Your task to perform on an android device: open app "DoorDash - Food Delivery" Image 0: 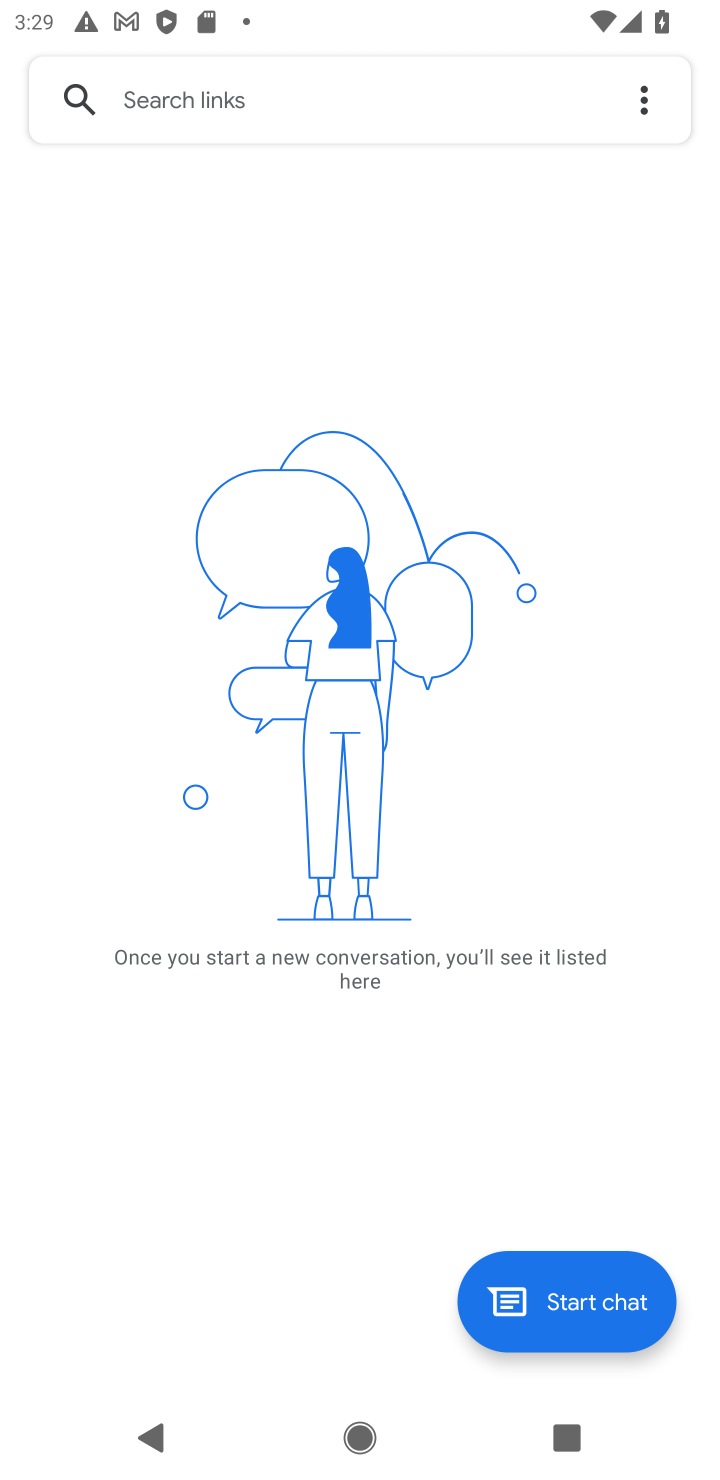
Step 0: press back button
Your task to perform on an android device: open app "DoorDash - Food Delivery" Image 1: 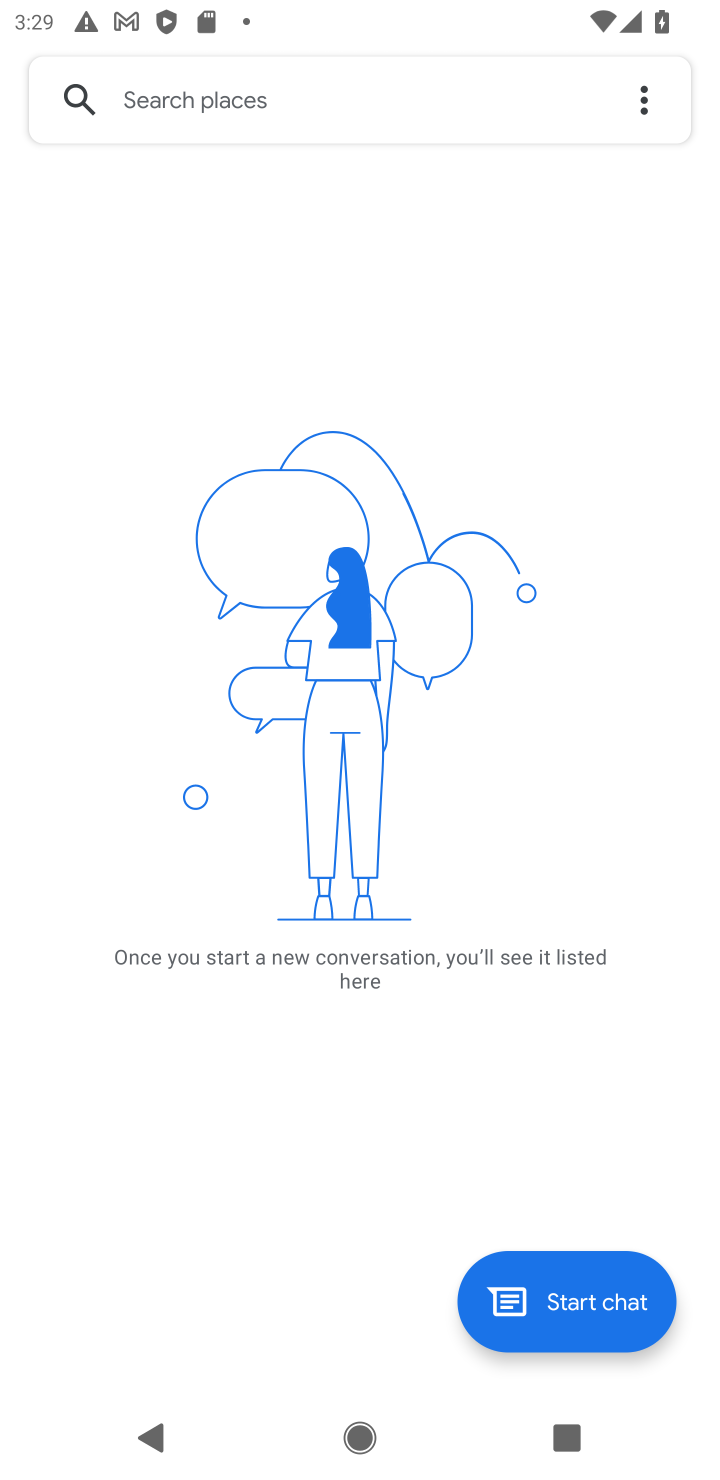
Step 1: press back button
Your task to perform on an android device: open app "DoorDash - Food Delivery" Image 2: 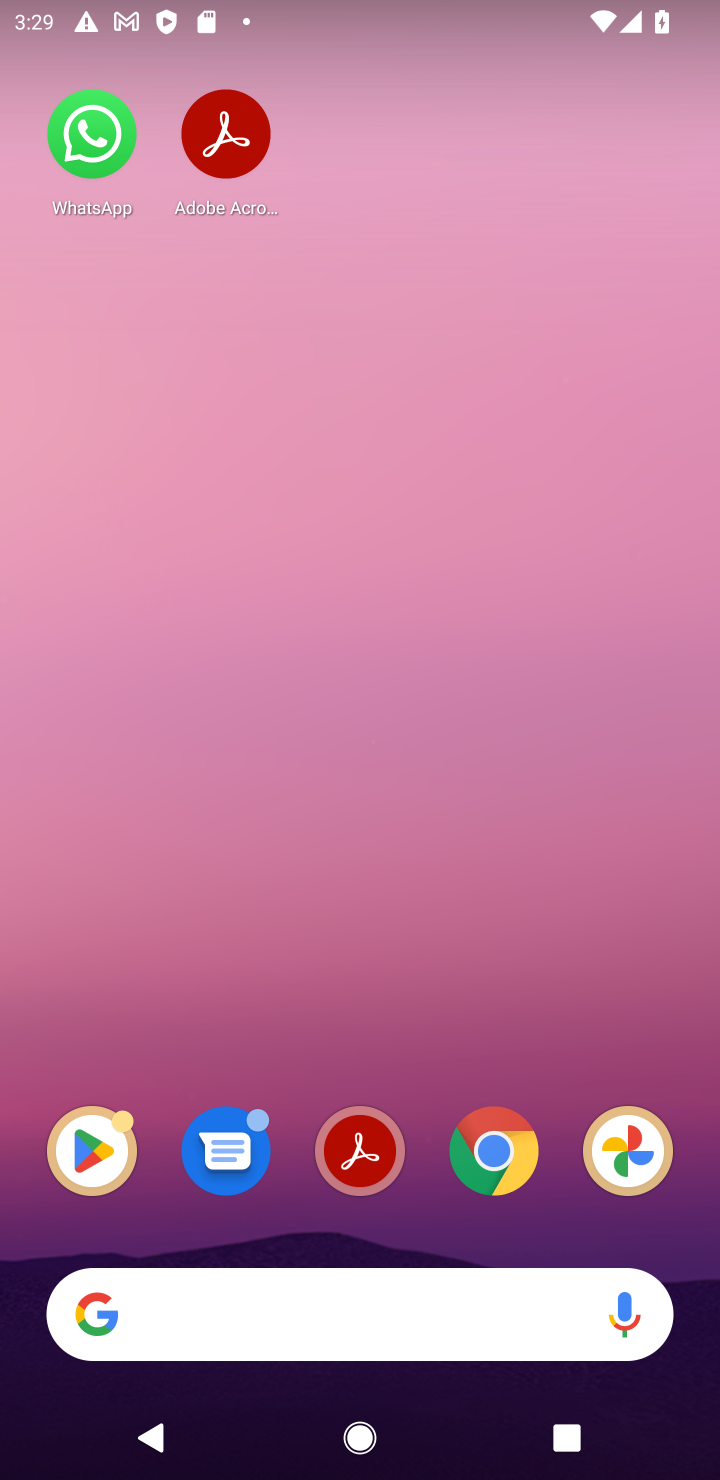
Step 2: drag from (422, 1044) to (395, 296)
Your task to perform on an android device: open app "DoorDash - Food Delivery" Image 3: 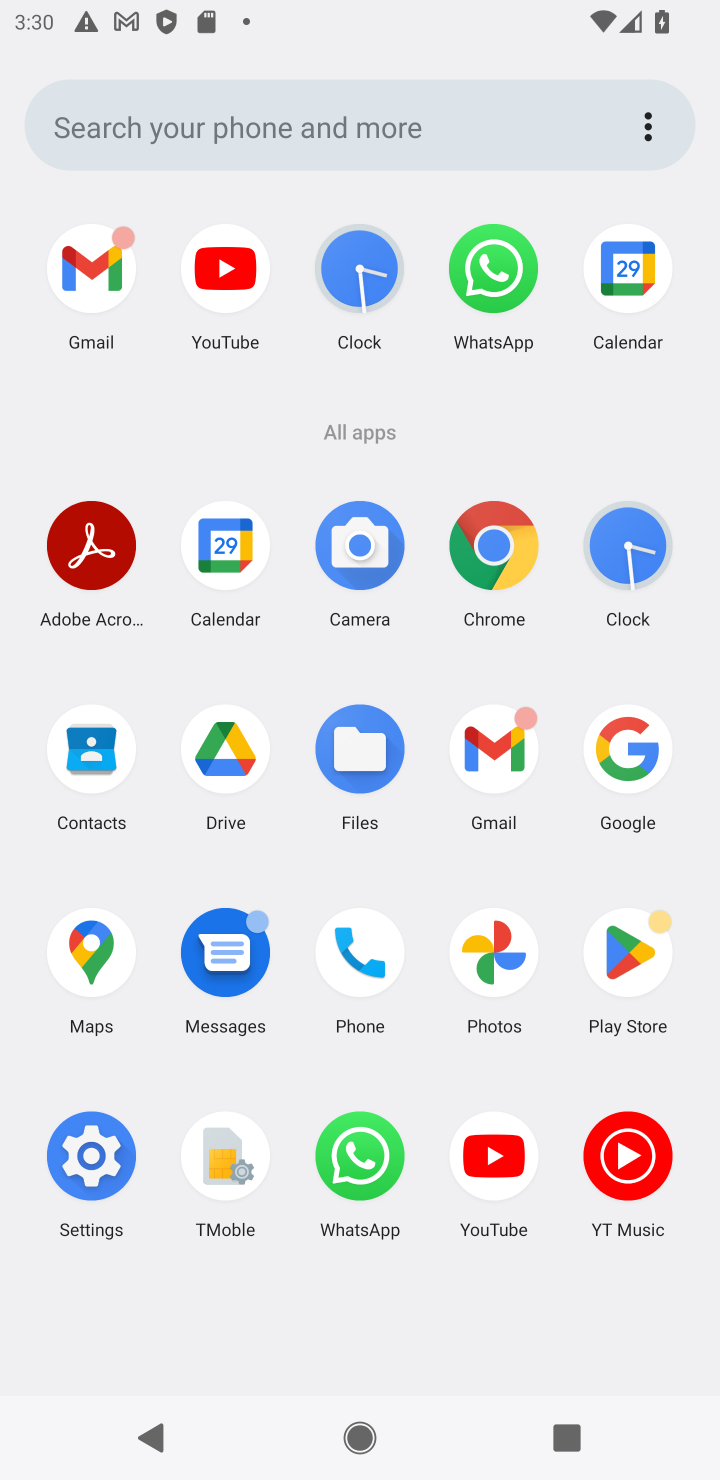
Step 3: click (624, 964)
Your task to perform on an android device: open app "DoorDash - Food Delivery" Image 4: 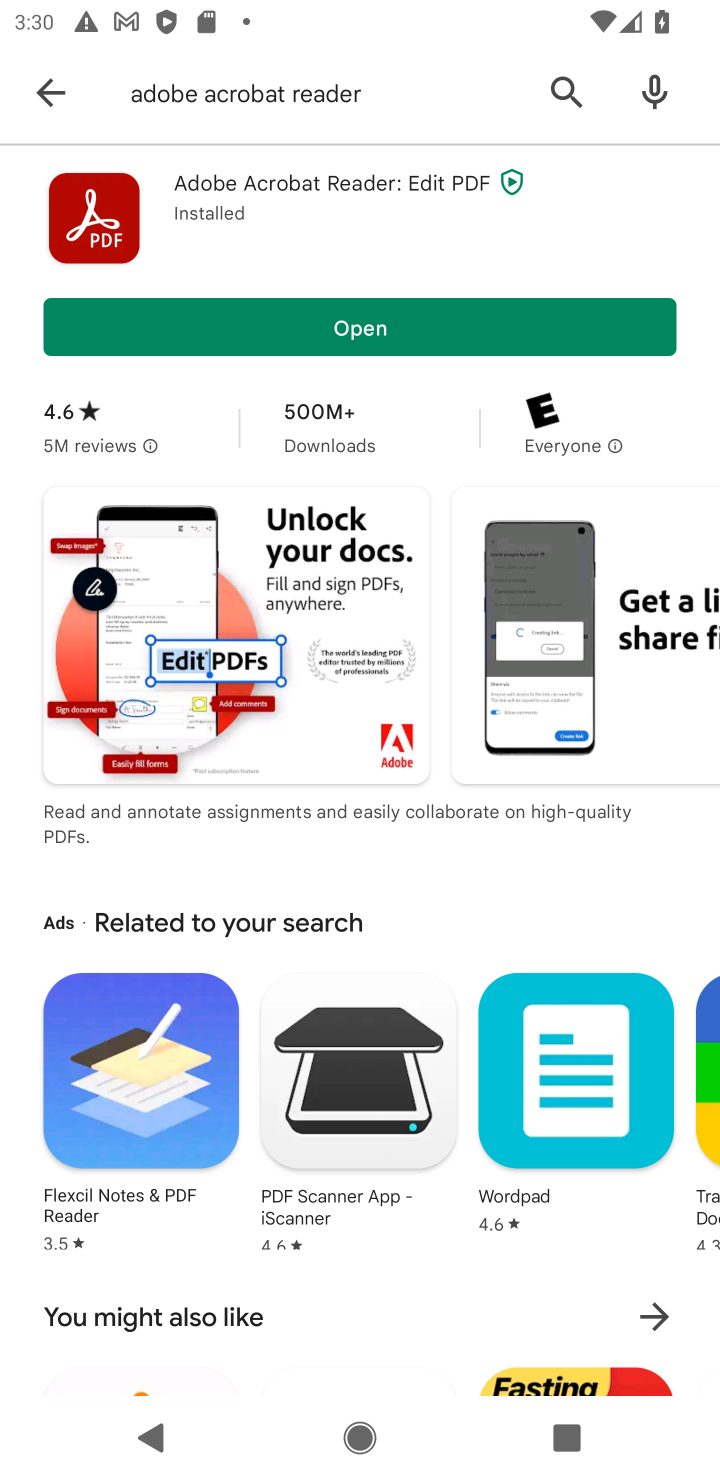
Step 4: click (570, 94)
Your task to perform on an android device: open app "DoorDash - Food Delivery" Image 5: 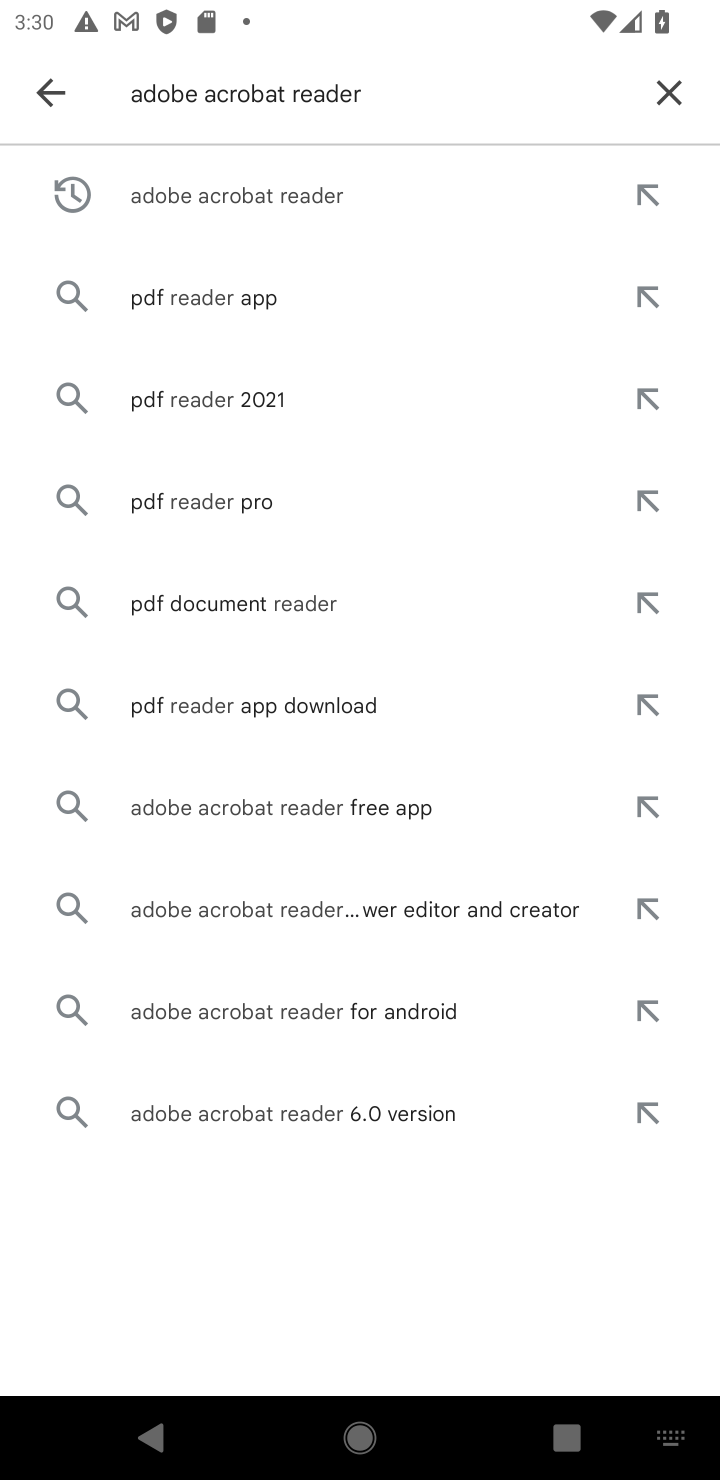
Step 5: click (662, 105)
Your task to perform on an android device: open app "DoorDash - Food Delivery" Image 6: 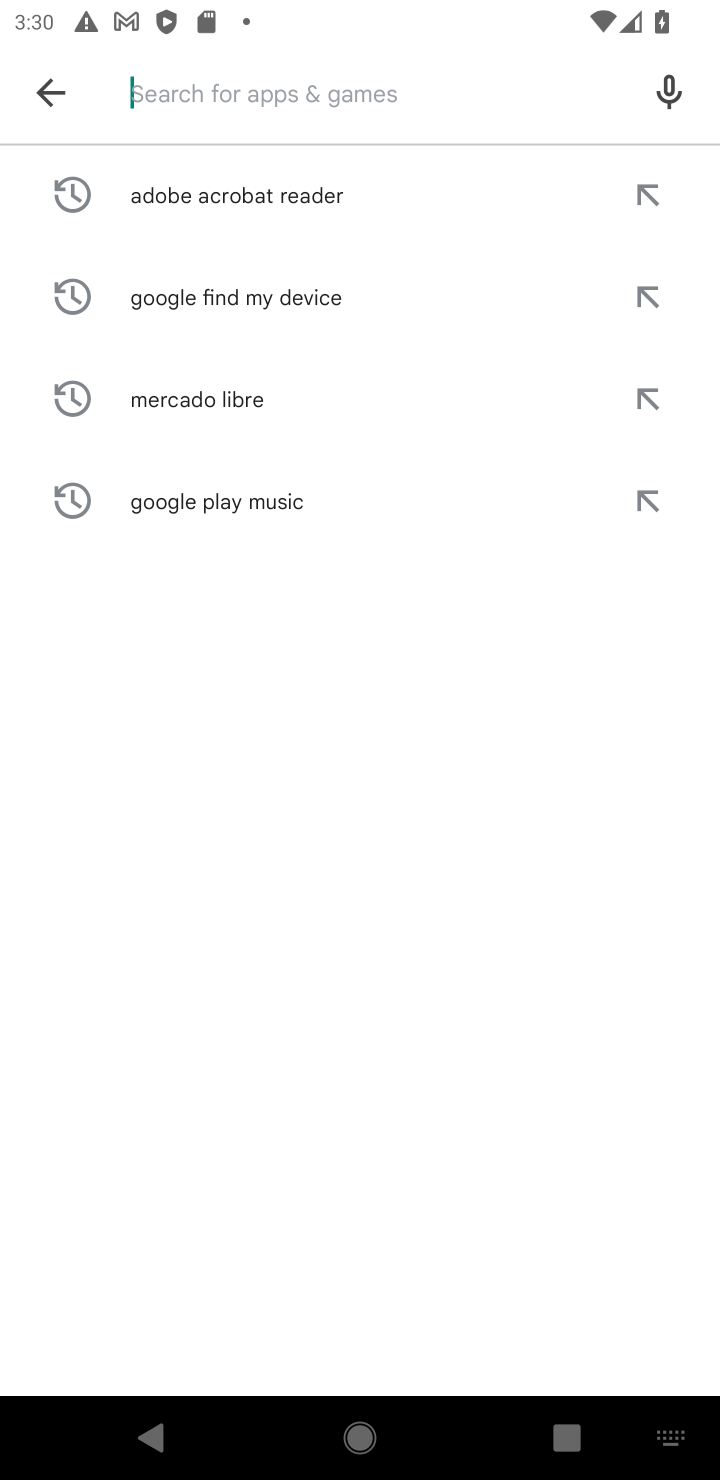
Step 6: type "DoorDash - Food Delivery"
Your task to perform on an android device: open app "DoorDash - Food Delivery" Image 7: 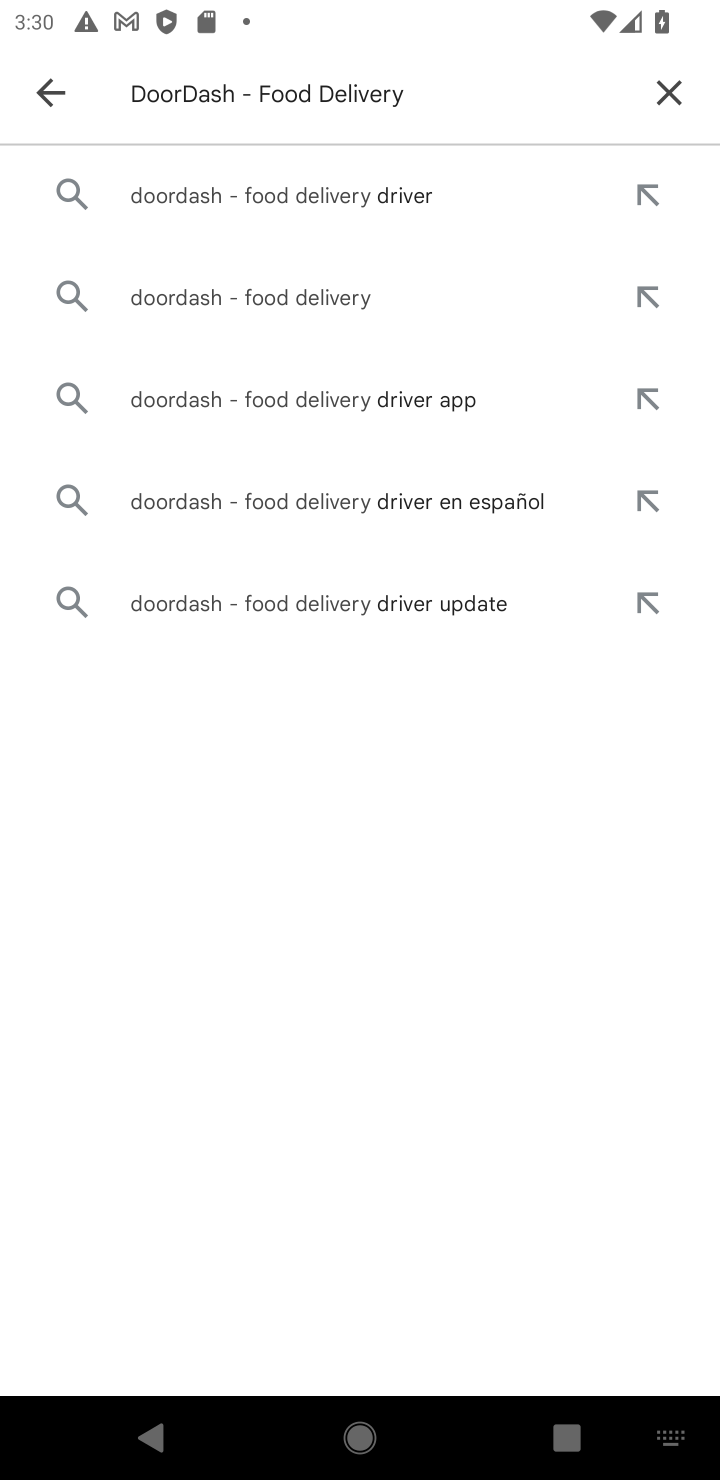
Step 7: click (282, 211)
Your task to perform on an android device: open app "DoorDash - Food Delivery" Image 8: 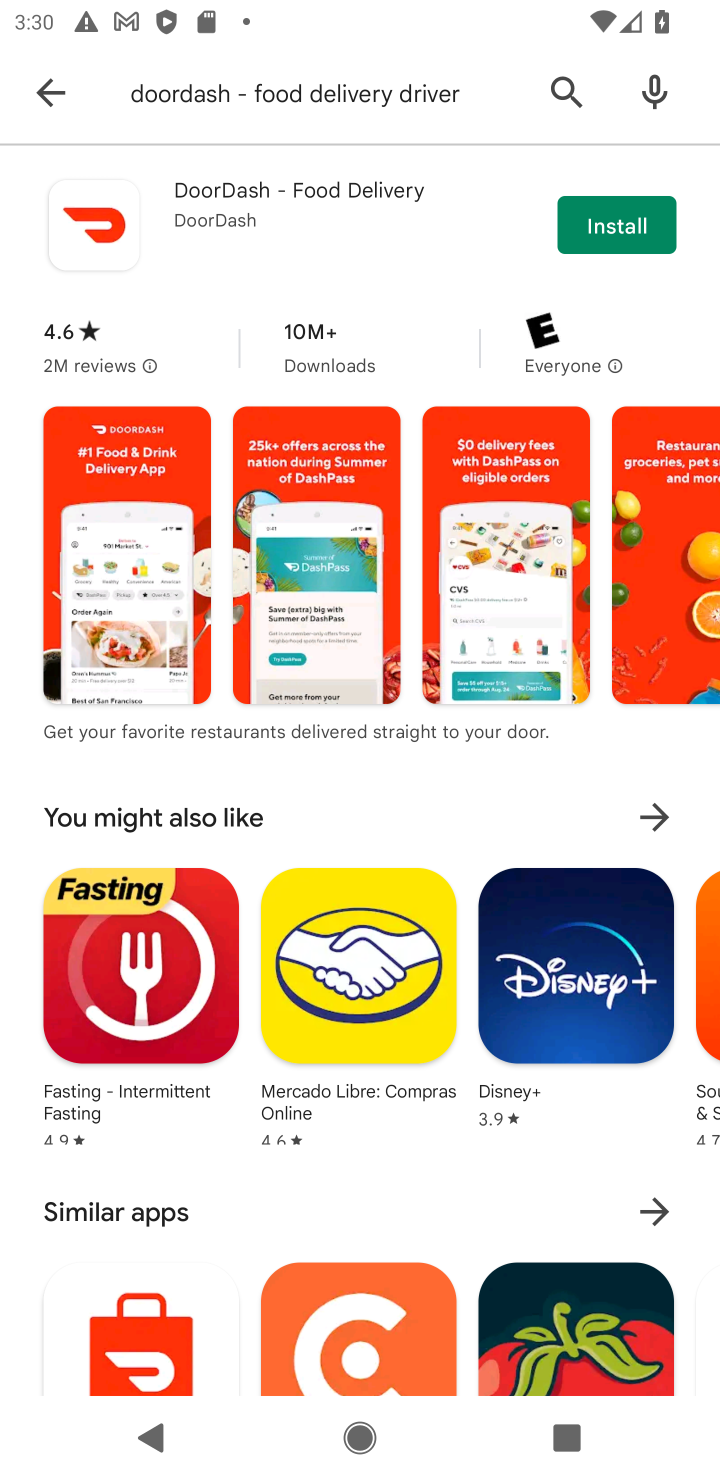
Step 8: task complete